Your task to perform on an android device: What's on my calendar today? Image 0: 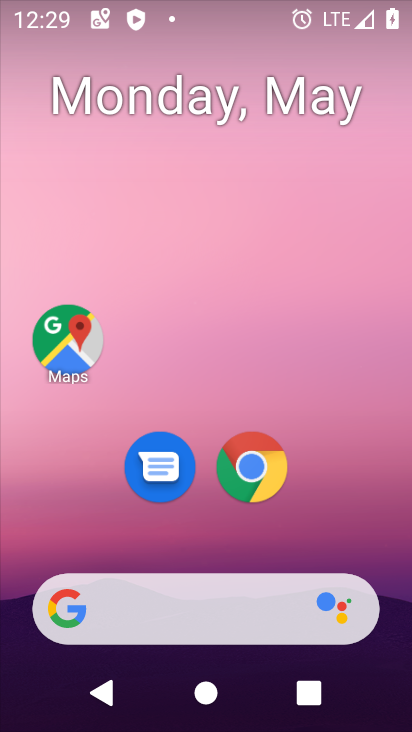
Step 0: drag from (360, 534) to (408, 663)
Your task to perform on an android device: What's on my calendar today? Image 1: 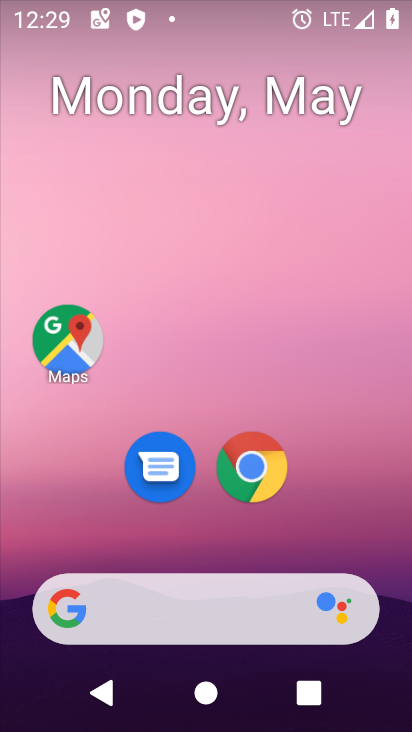
Step 1: drag from (364, 559) to (332, 5)
Your task to perform on an android device: What's on my calendar today? Image 2: 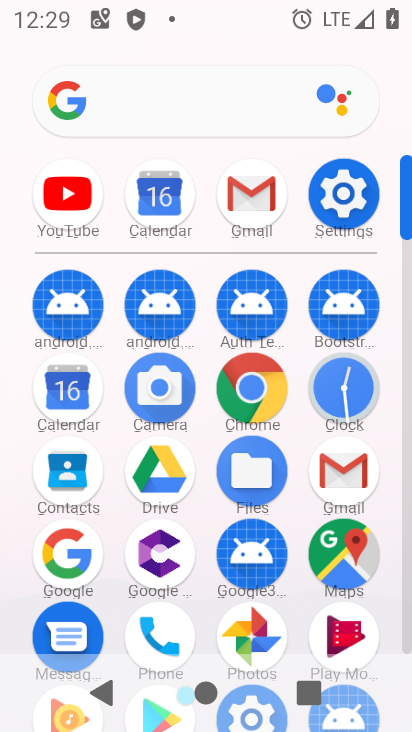
Step 2: click (153, 203)
Your task to perform on an android device: What's on my calendar today? Image 3: 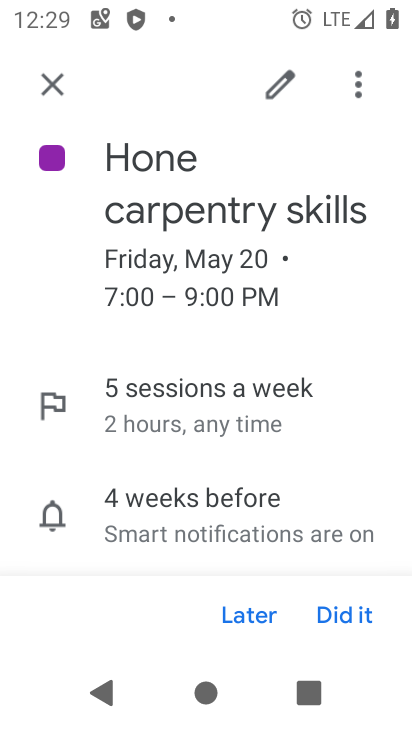
Step 3: click (47, 76)
Your task to perform on an android device: What's on my calendar today? Image 4: 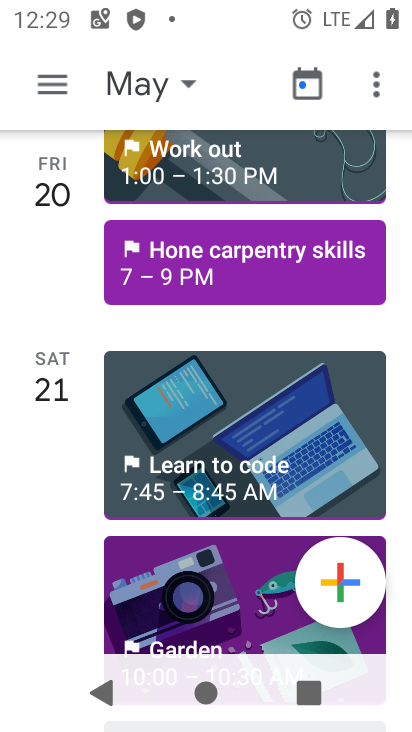
Step 4: drag from (215, 363) to (174, 695)
Your task to perform on an android device: What's on my calendar today? Image 5: 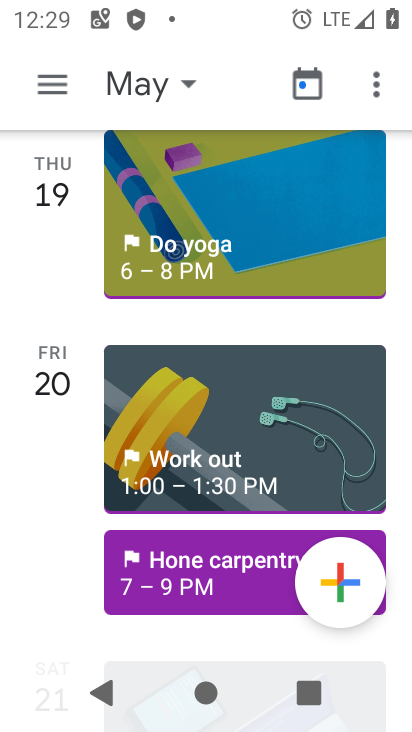
Step 5: drag from (190, 196) to (156, 713)
Your task to perform on an android device: What's on my calendar today? Image 6: 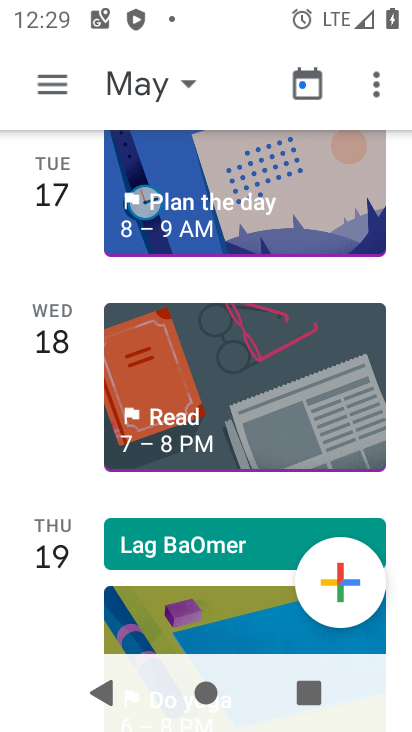
Step 6: drag from (198, 250) to (93, 729)
Your task to perform on an android device: What's on my calendar today? Image 7: 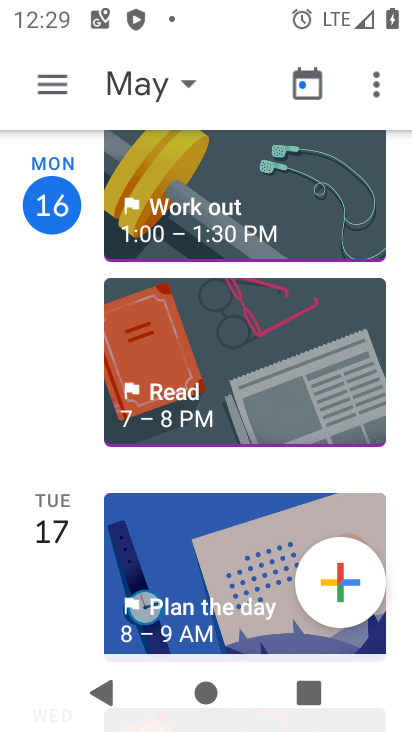
Step 7: click (210, 239)
Your task to perform on an android device: What's on my calendar today? Image 8: 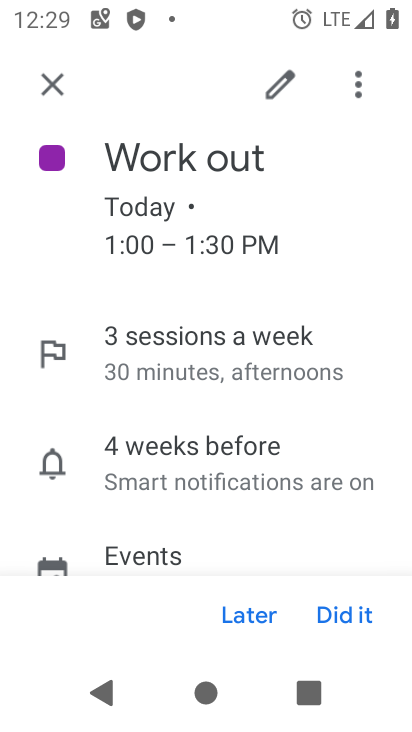
Step 8: task complete